Your task to perform on an android device: turn off javascript in the chrome app Image 0: 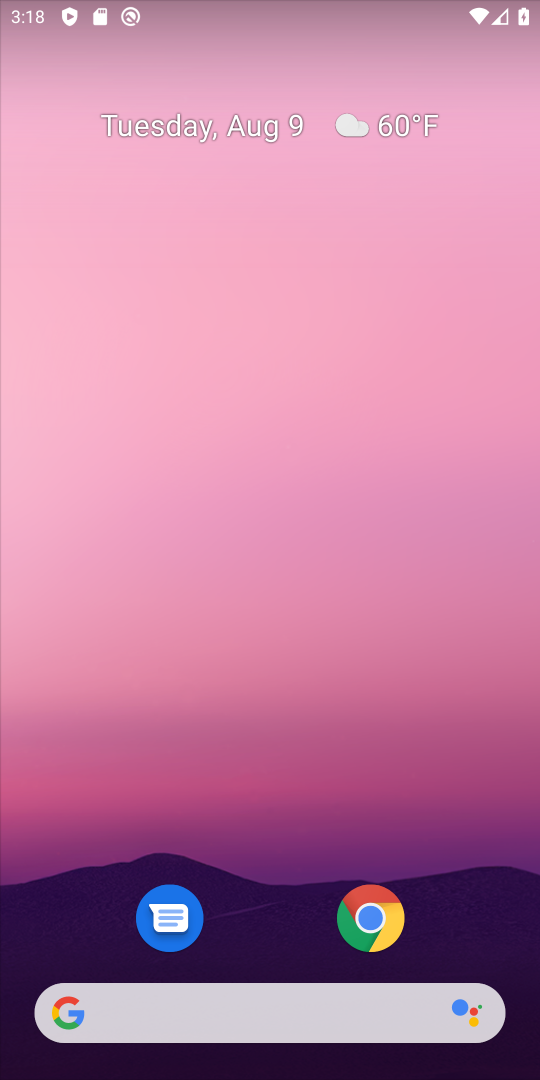
Step 0: press back button
Your task to perform on an android device: turn off javascript in the chrome app Image 1: 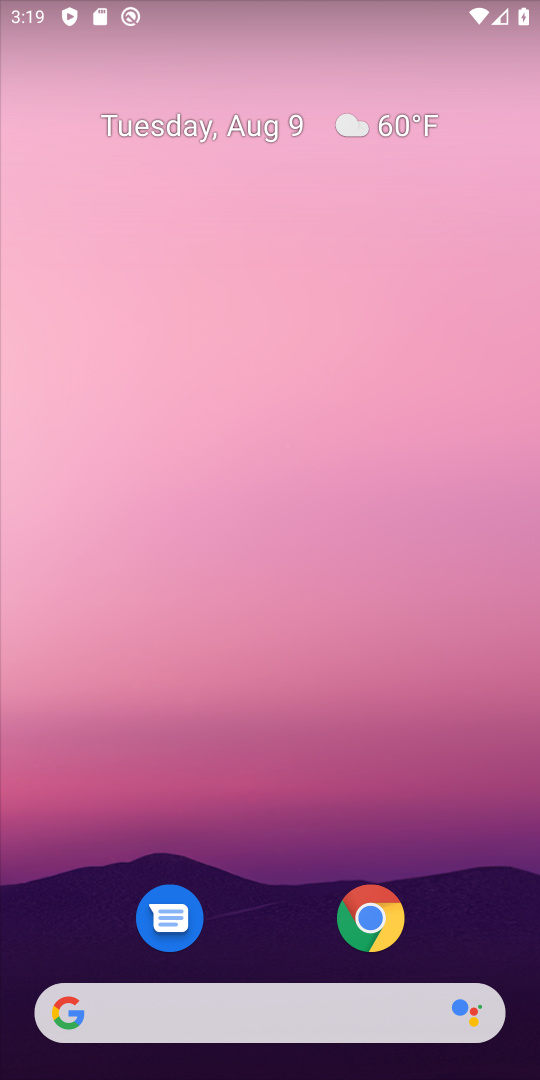
Step 1: click (388, 926)
Your task to perform on an android device: turn off javascript in the chrome app Image 2: 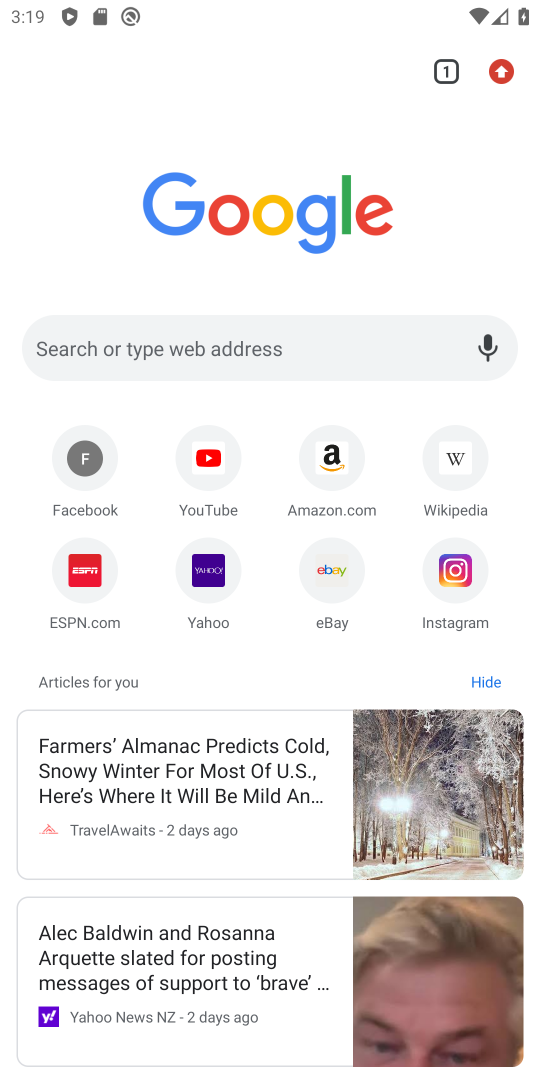
Step 2: drag from (507, 63) to (287, 675)
Your task to perform on an android device: turn off javascript in the chrome app Image 3: 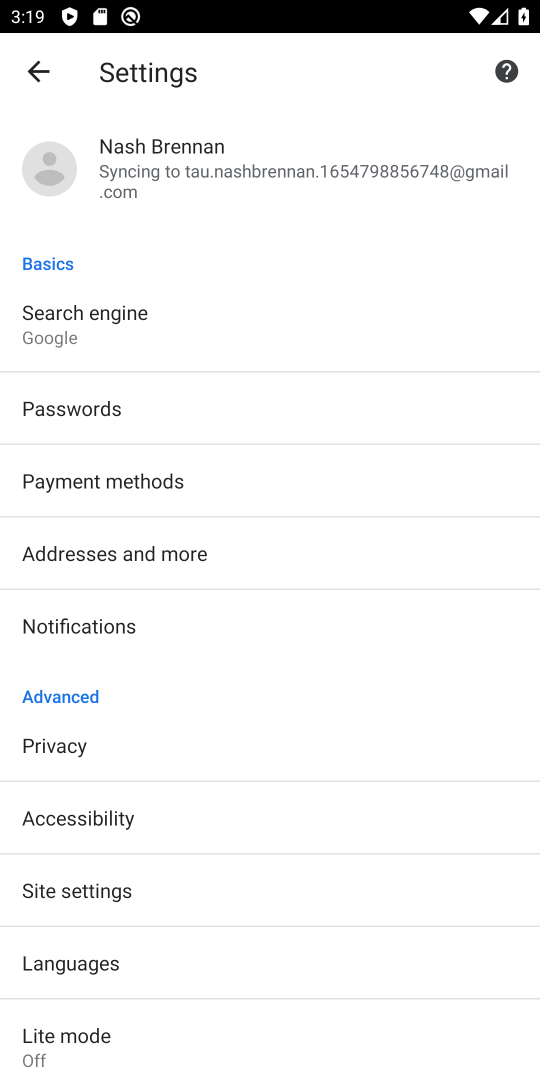
Step 3: click (126, 901)
Your task to perform on an android device: turn off javascript in the chrome app Image 4: 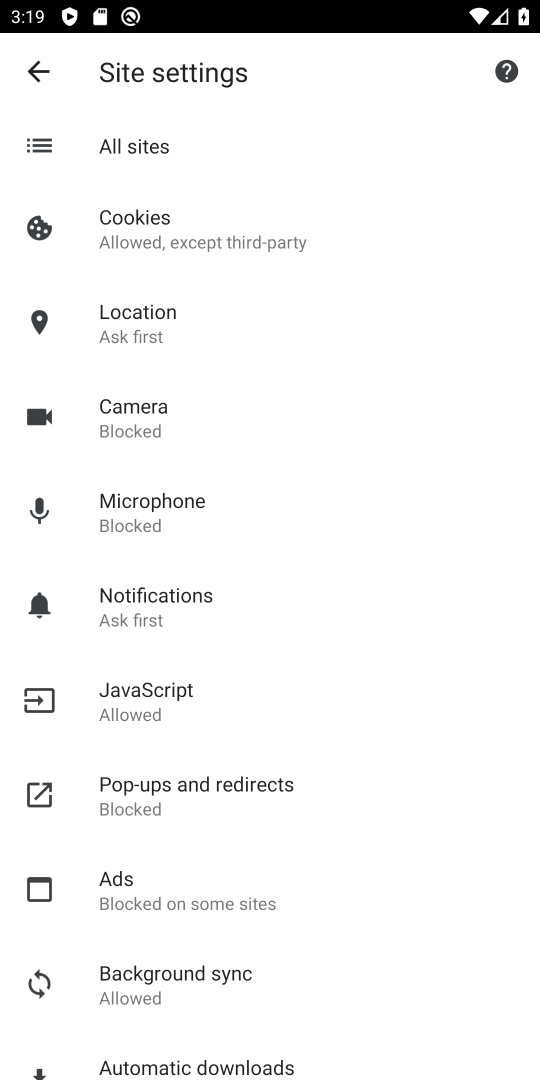
Step 4: click (174, 692)
Your task to perform on an android device: turn off javascript in the chrome app Image 5: 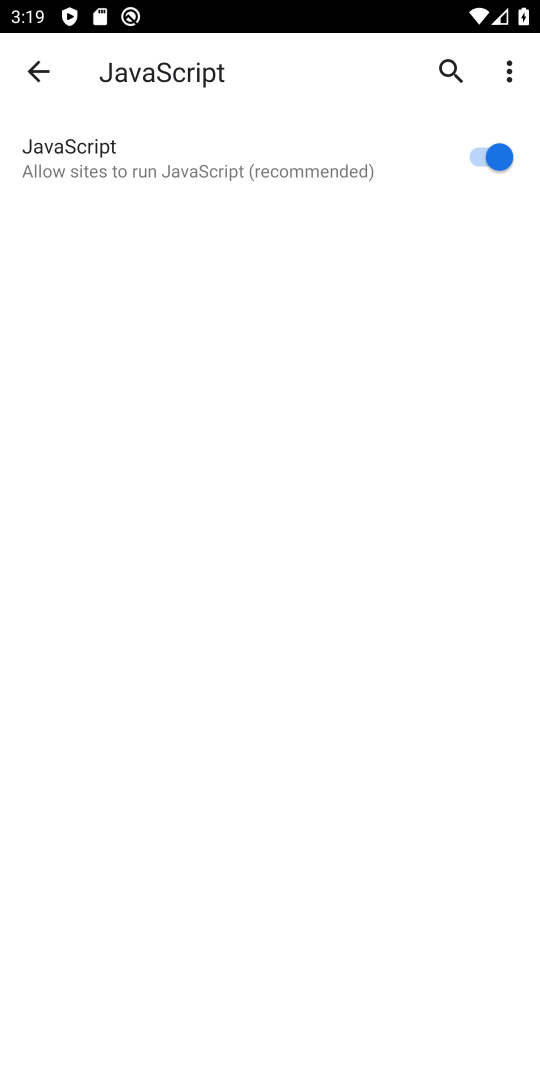
Step 5: click (507, 148)
Your task to perform on an android device: turn off javascript in the chrome app Image 6: 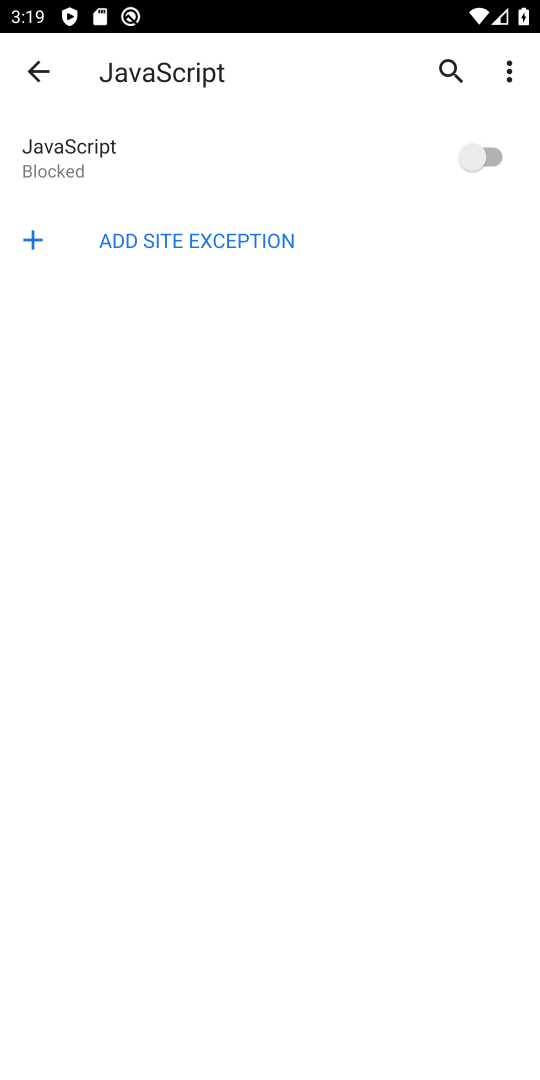
Step 6: task complete